Your task to perform on an android device: add a contact in the contacts app Image 0: 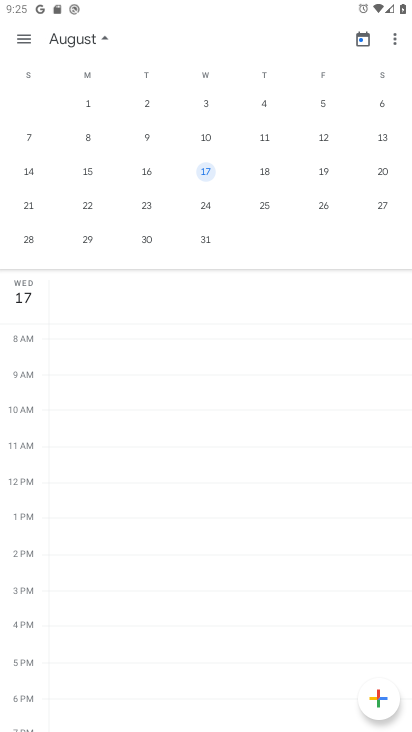
Step 0: press home button
Your task to perform on an android device: add a contact in the contacts app Image 1: 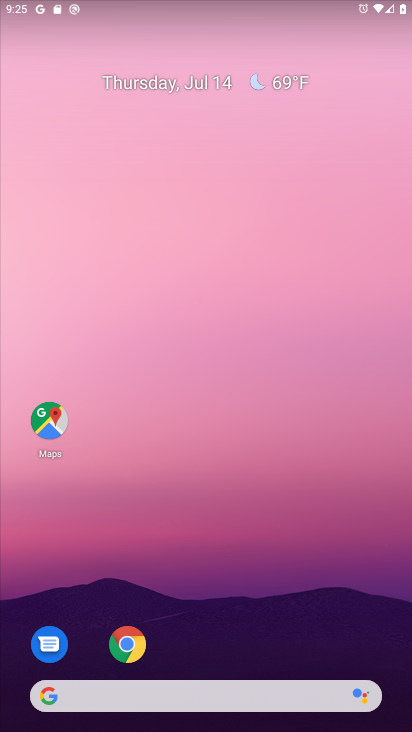
Step 1: drag from (211, 641) to (207, 75)
Your task to perform on an android device: add a contact in the contacts app Image 2: 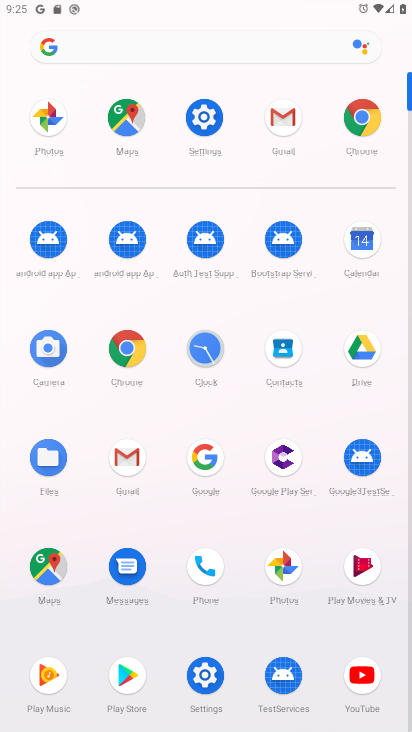
Step 2: click (274, 355)
Your task to perform on an android device: add a contact in the contacts app Image 3: 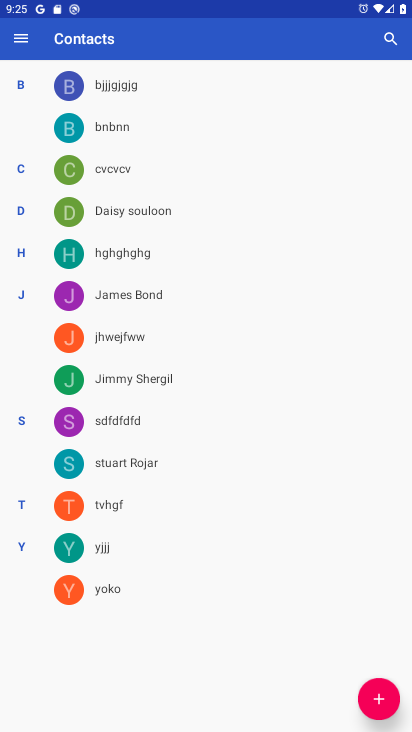
Step 3: click (390, 701)
Your task to perform on an android device: add a contact in the contacts app Image 4: 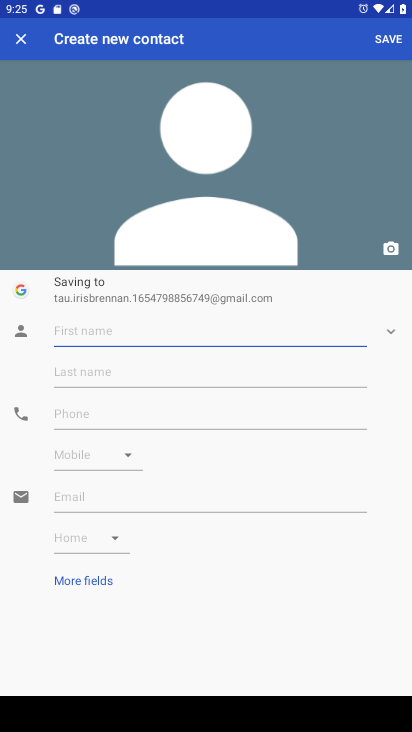
Step 4: type "oikjhgfdcxszasdfghjk"
Your task to perform on an android device: add a contact in the contacts app Image 5: 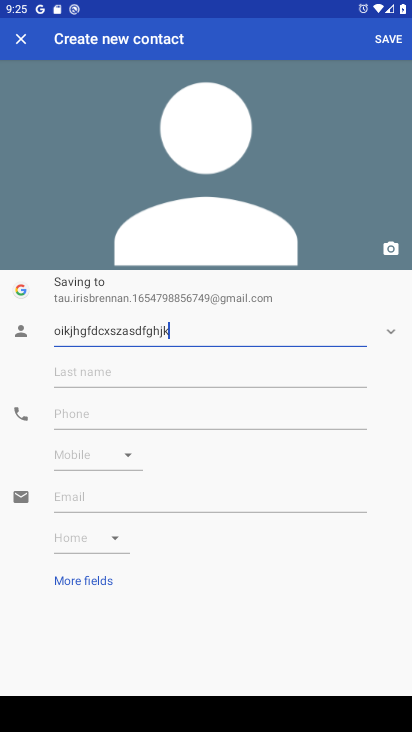
Step 5: click (90, 408)
Your task to perform on an android device: add a contact in the contacts app Image 6: 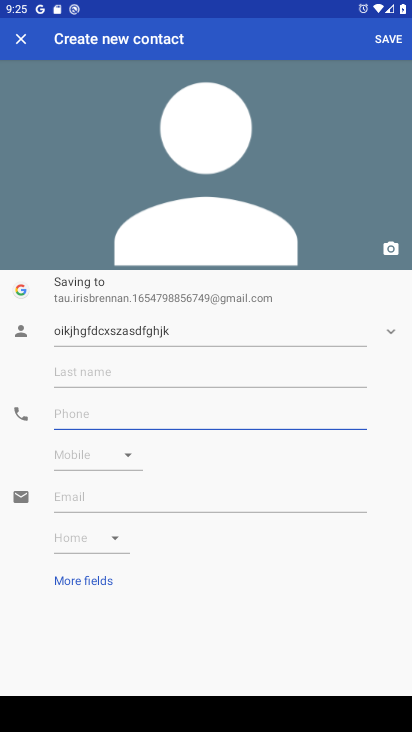
Step 6: type "0987654323456"
Your task to perform on an android device: add a contact in the contacts app Image 7: 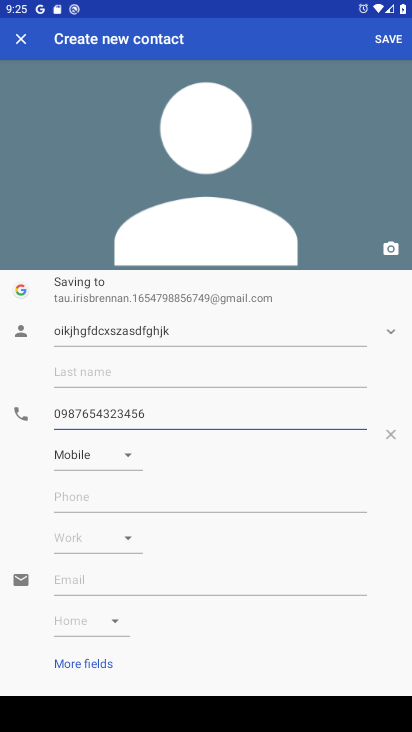
Step 7: click (381, 53)
Your task to perform on an android device: add a contact in the contacts app Image 8: 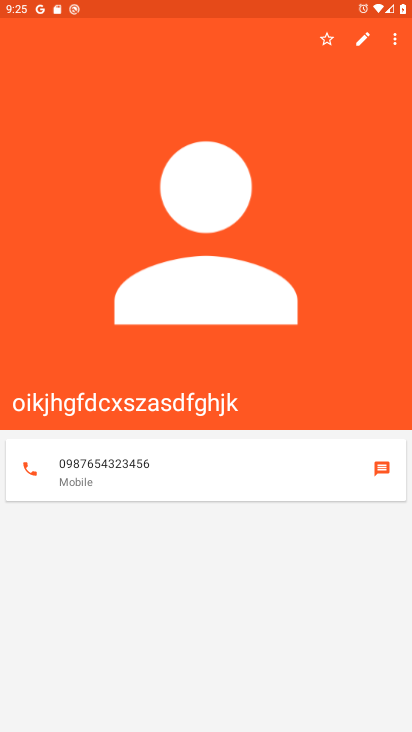
Step 8: task complete